Your task to perform on an android device: Is it going to rain tomorrow? Image 0: 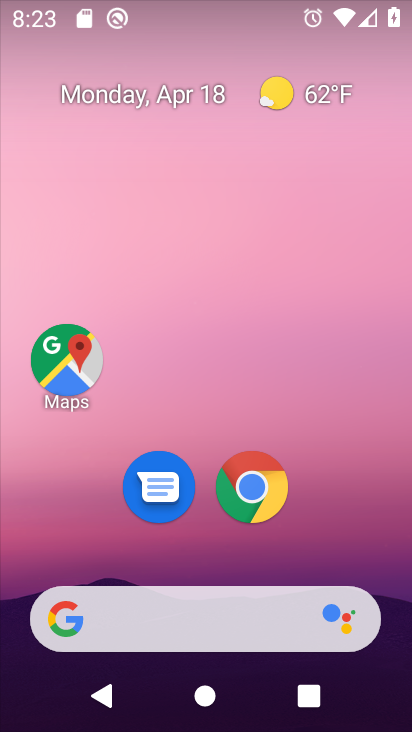
Step 0: press home button
Your task to perform on an android device: Is it going to rain tomorrow? Image 1: 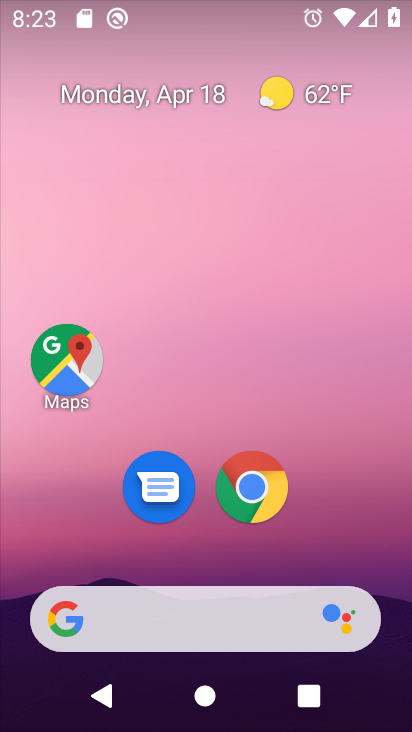
Step 1: click (289, 91)
Your task to perform on an android device: Is it going to rain tomorrow? Image 2: 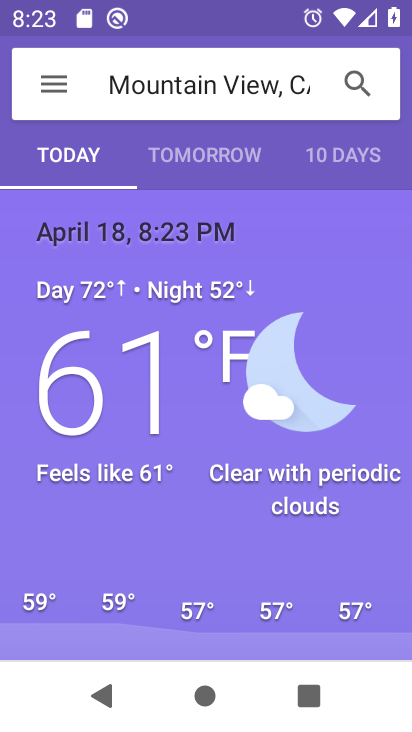
Step 2: drag from (217, 582) to (307, 222)
Your task to perform on an android device: Is it going to rain tomorrow? Image 3: 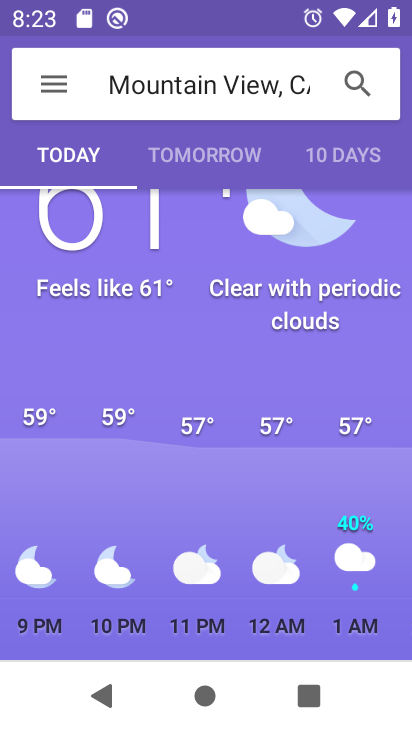
Step 3: click (199, 146)
Your task to perform on an android device: Is it going to rain tomorrow? Image 4: 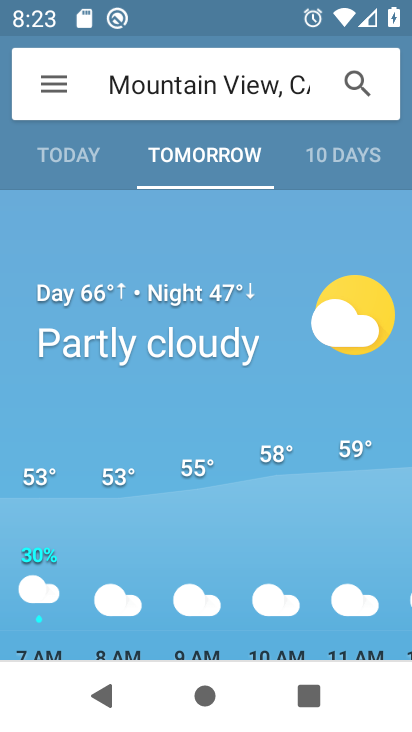
Step 4: task complete